Your task to perform on an android device: turn off airplane mode Image 0: 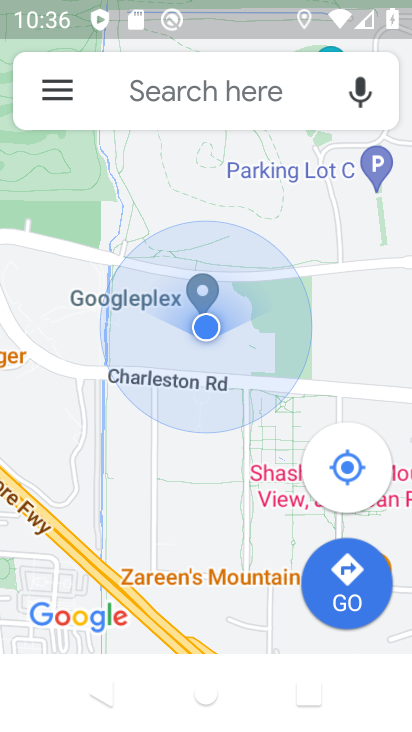
Step 0: press home button
Your task to perform on an android device: turn off airplane mode Image 1: 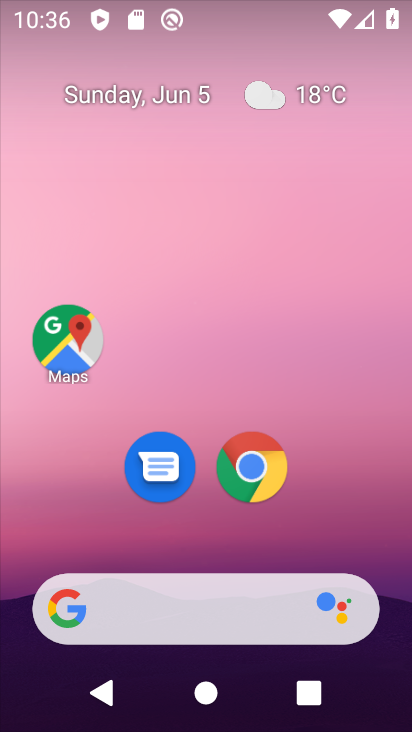
Step 1: task complete